Your task to perform on an android device: toggle sleep mode Image 0: 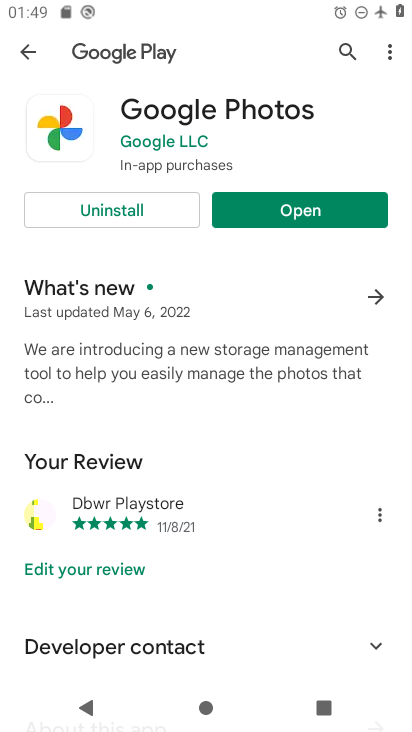
Step 0: press home button
Your task to perform on an android device: toggle sleep mode Image 1: 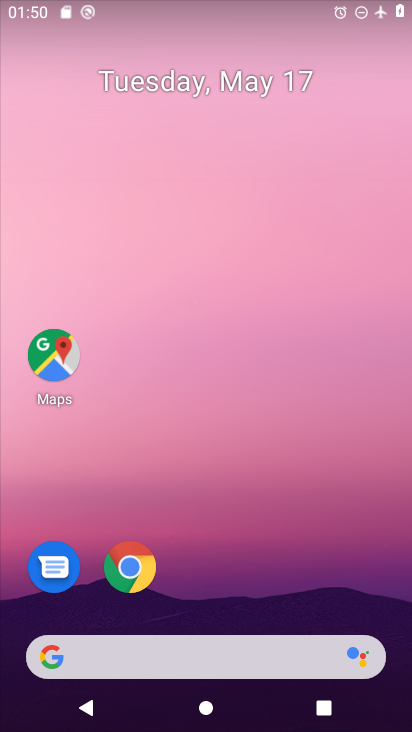
Step 1: drag from (235, 478) to (220, 47)
Your task to perform on an android device: toggle sleep mode Image 2: 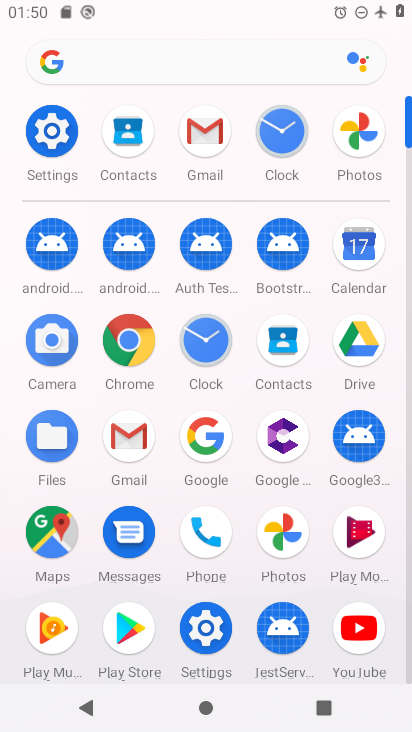
Step 2: click (46, 115)
Your task to perform on an android device: toggle sleep mode Image 3: 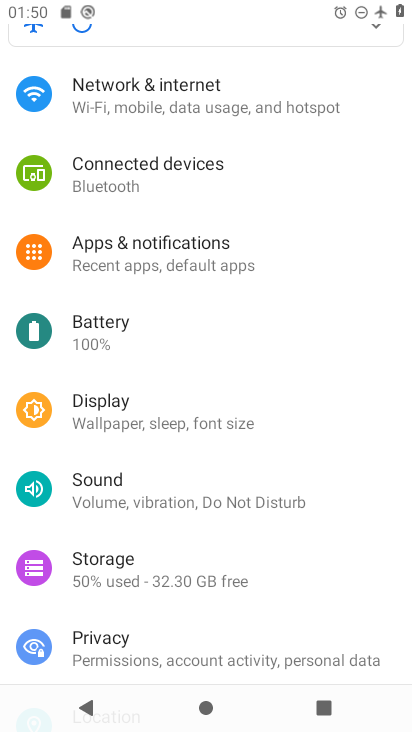
Step 3: click (137, 419)
Your task to perform on an android device: toggle sleep mode Image 4: 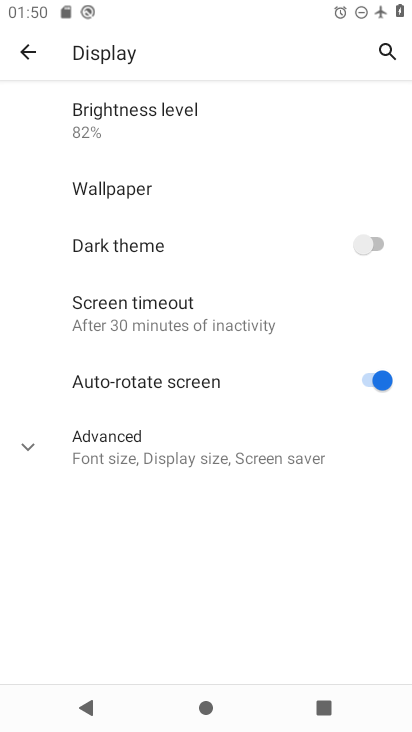
Step 4: task complete